Your task to perform on an android device: turn on notifications settings in the gmail app Image 0: 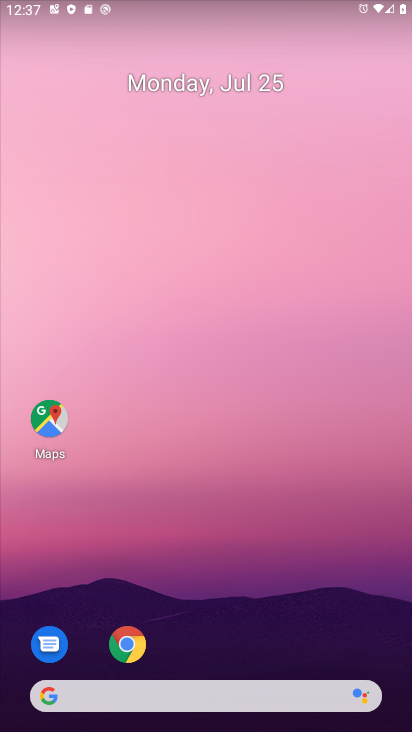
Step 0: drag from (339, 630) to (96, 60)
Your task to perform on an android device: turn on notifications settings in the gmail app Image 1: 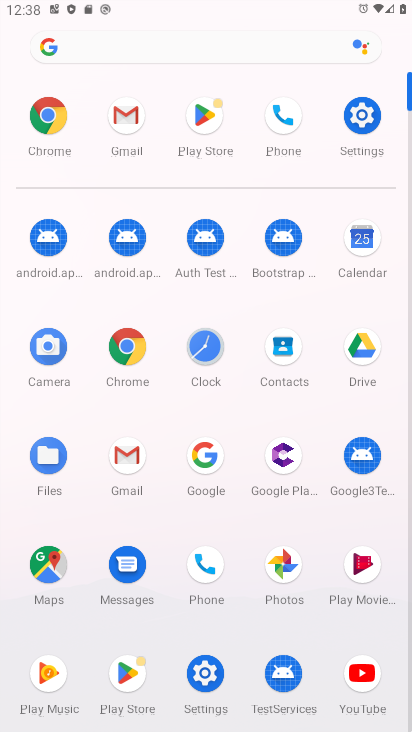
Step 1: click (136, 470)
Your task to perform on an android device: turn on notifications settings in the gmail app Image 2: 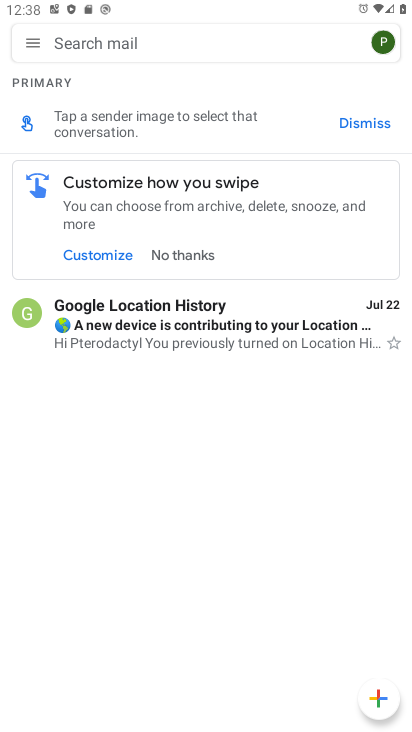
Step 2: click (31, 47)
Your task to perform on an android device: turn on notifications settings in the gmail app Image 3: 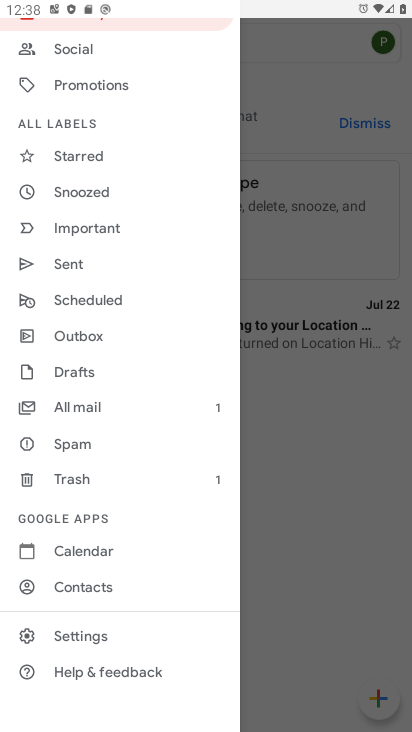
Step 3: click (124, 633)
Your task to perform on an android device: turn on notifications settings in the gmail app Image 4: 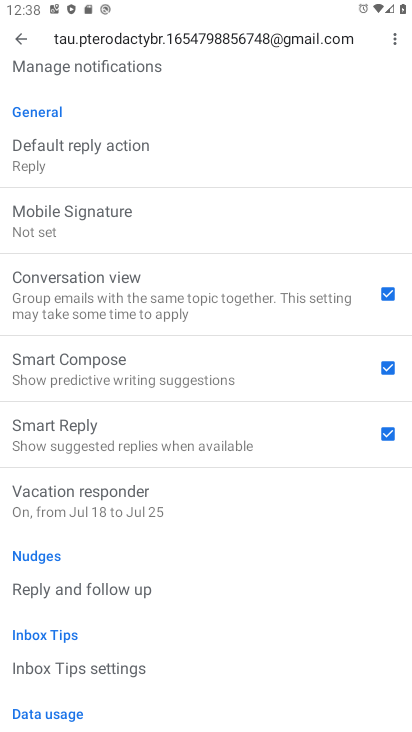
Step 4: drag from (88, 140) to (168, 728)
Your task to perform on an android device: turn on notifications settings in the gmail app Image 5: 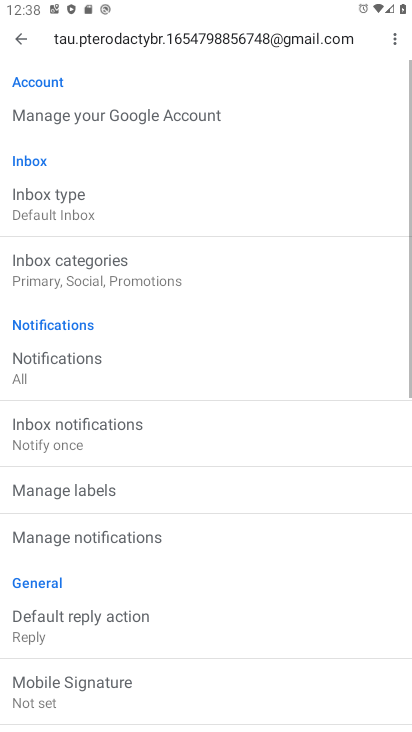
Step 5: click (107, 385)
Your task to perform on an android device: turn on notifications settings in the gmail app Image 6: 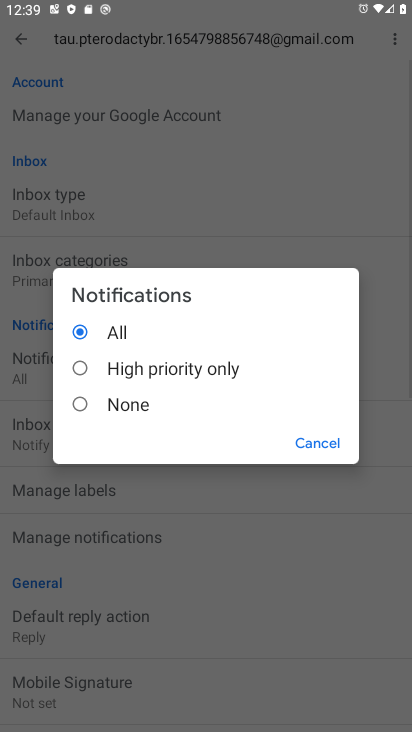
Step 6: click (94, 396)
Your task to perform on an android device: turn on notifications settings in the gmail app Image 7: 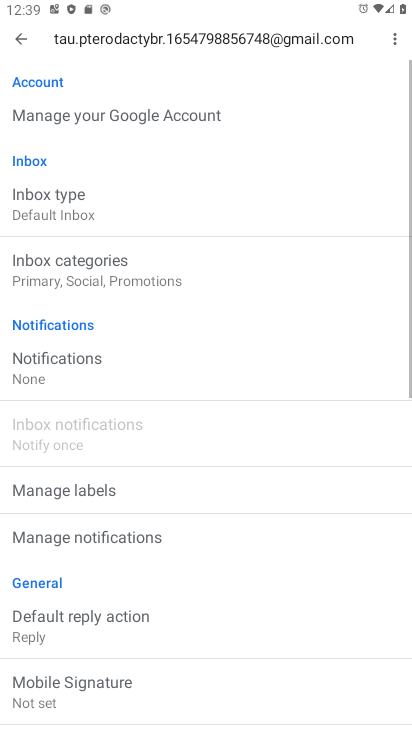
Step 7: click (68, 362)
Your task to perform on an android device: turn on notifications settings in the gmail app Image 8: 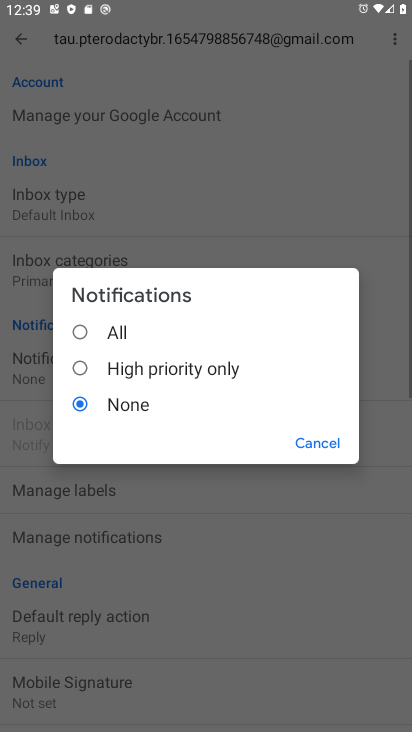
Step 8: click (87, 333)
Your task to perform on an android device: turn on notifications settings in the gmail app Image 9: 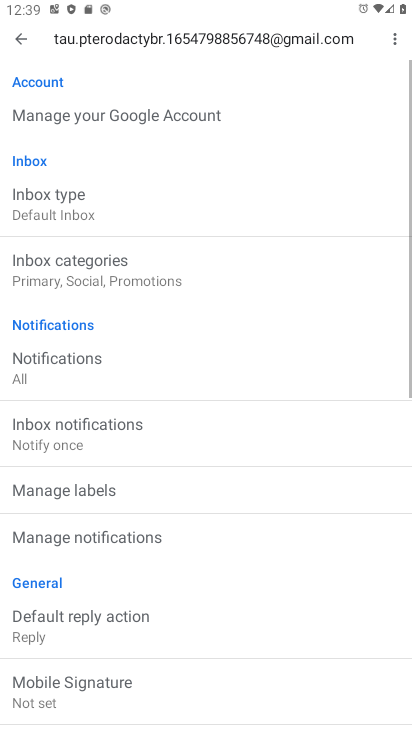
Step 9: task complete